Your task to perform on an android device: turn on airplane mode Image 0: 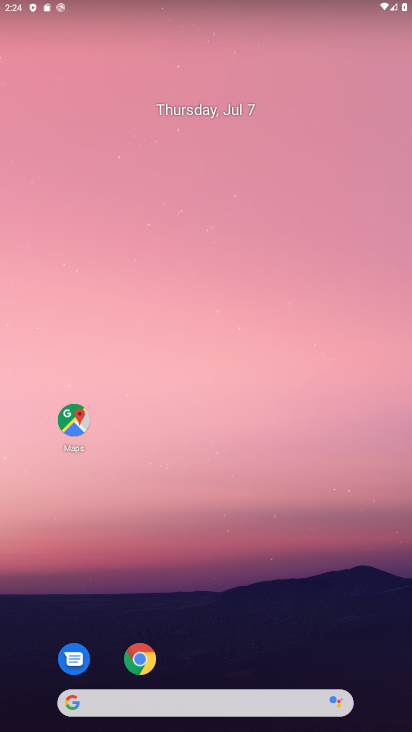
Step 0: drag from (310, 33) to (308, 591)
Your task to perform on an android device: turn on airplane mode Image 1: 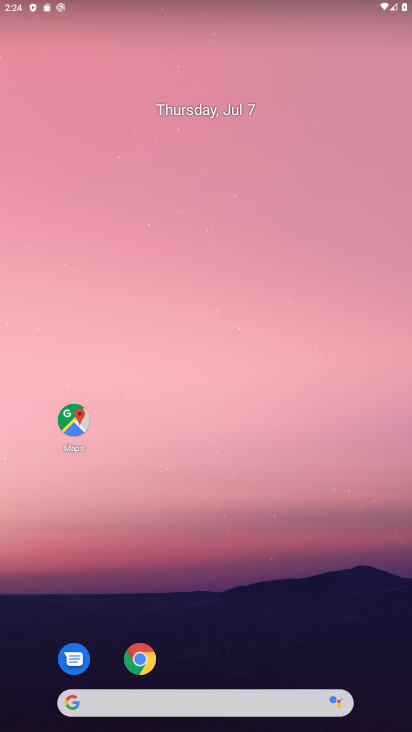
Step 1: drag from (16, 692) to (162, 177)
Your task to perform on an android device: turn on airplane mode Image 2: 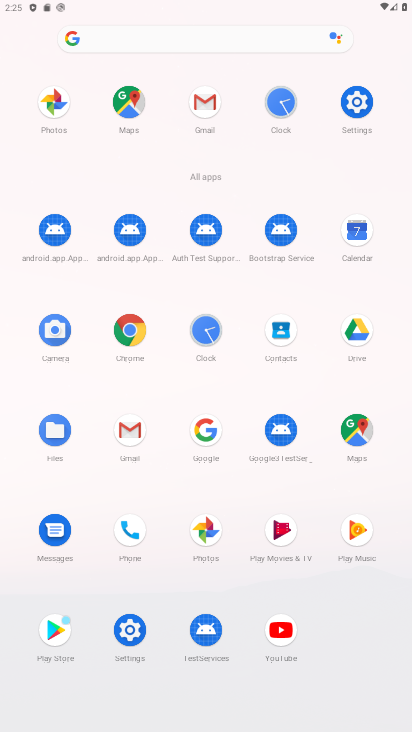
Step 2: click (131, 630)
Your task to perform on an android device: turn on airplane mode Image 3: 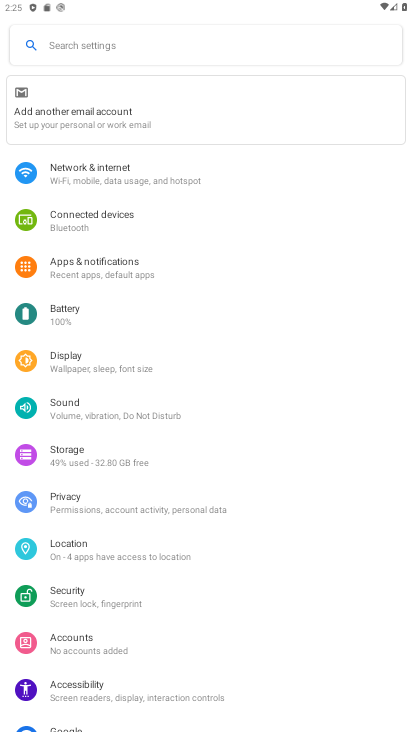
Step 3: click (122, 184)
Your task to perform on an android device: turn on airplane mode Image 4: 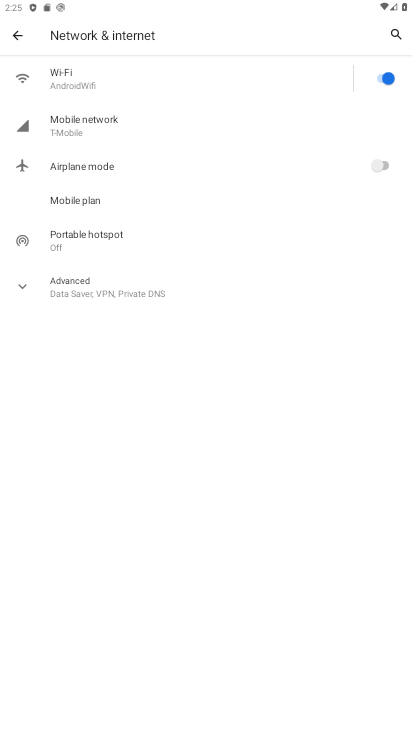
Step 4: click (372, 165)
Your task to perform on an android device: turn on airplane mode Image 5: 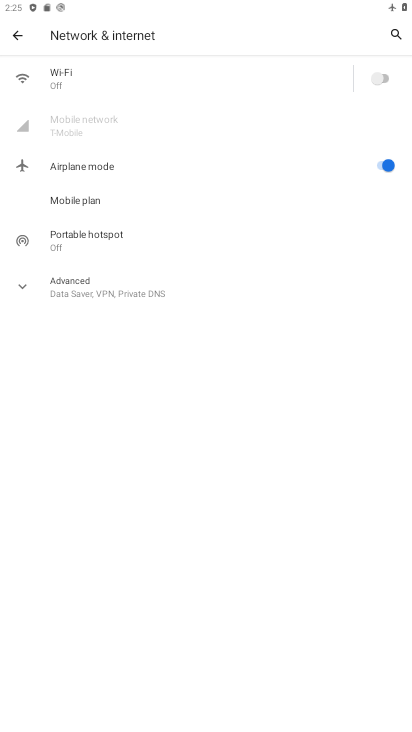
Step 5: task complete